Your task to perform on an android device: When is my next appointment? Image 0: 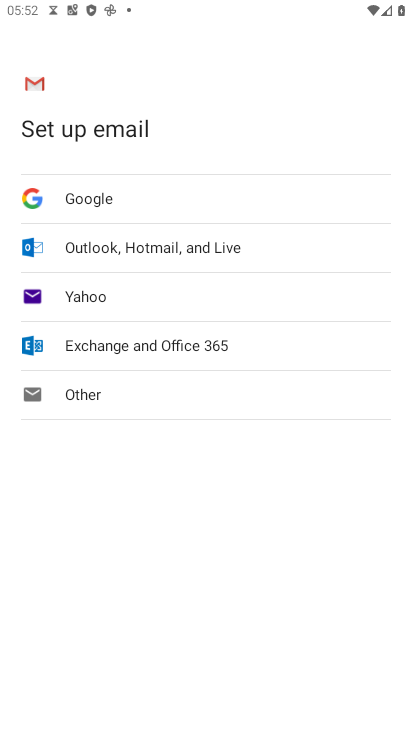
Step 0: press home button
Your task to perform on an android device: When is my next appointment? Image 1: 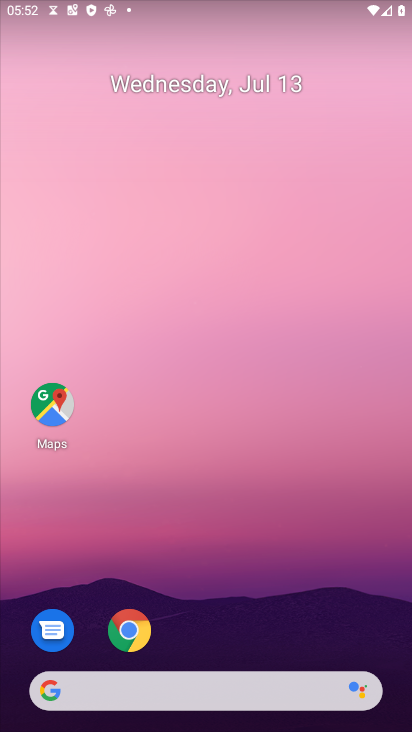
Step 1: drag from (292, 685) to (212, 5)
Your task to perform on an android device: When is my next appointment? Image 2: 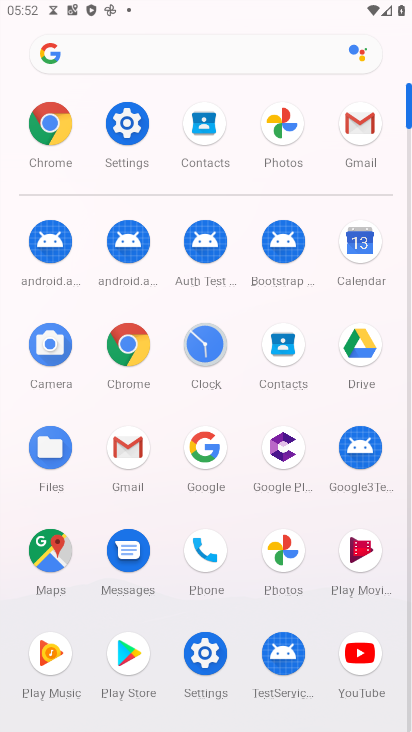
Step 2: click (355, 234)
Your task to perform on an android device: When is my next appointment? Image 3: 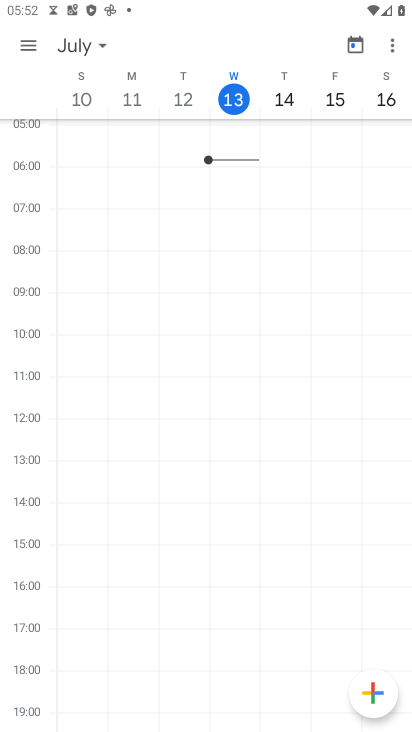
Step 3: click (108, 38)
Your task to perform on an android device: When is my next appointment? Image 4: 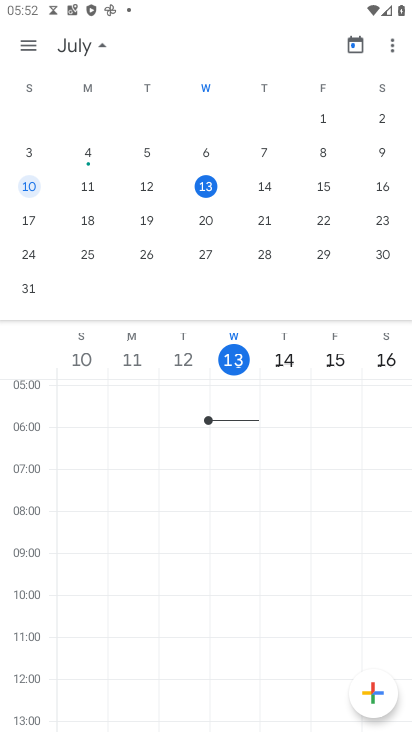
Step 4: click (268, 184)
Your task to perform on an android device: When is my next appointment? Image 5: 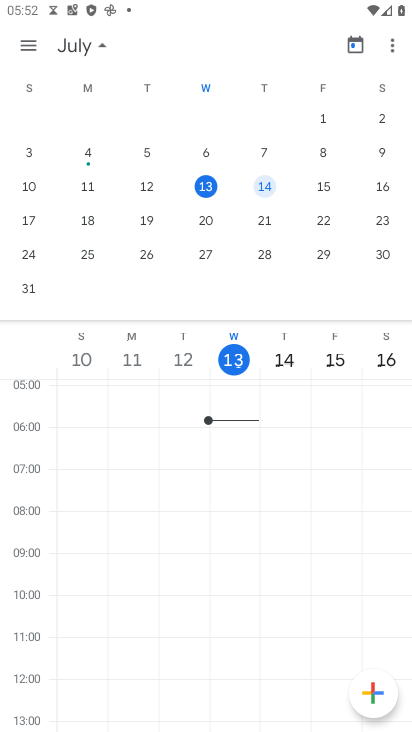
Step 5: task complete